Your task to perform on an android device: Show me the alarms in the clock app Image 0: 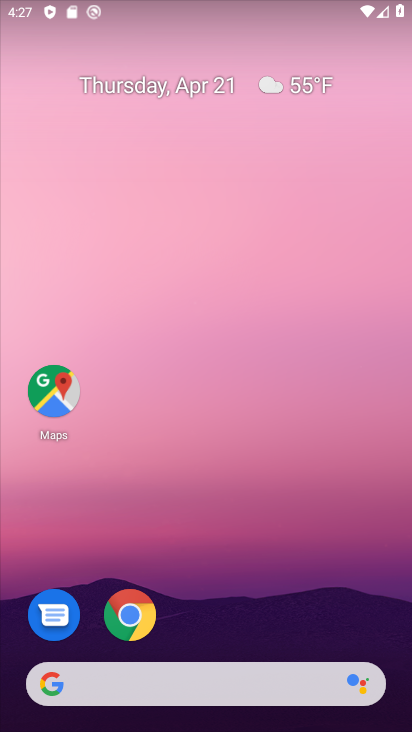
Step 0: click (198, 180)
Your task to perform on an android device: Show me the alarms in the clock app Image 1: 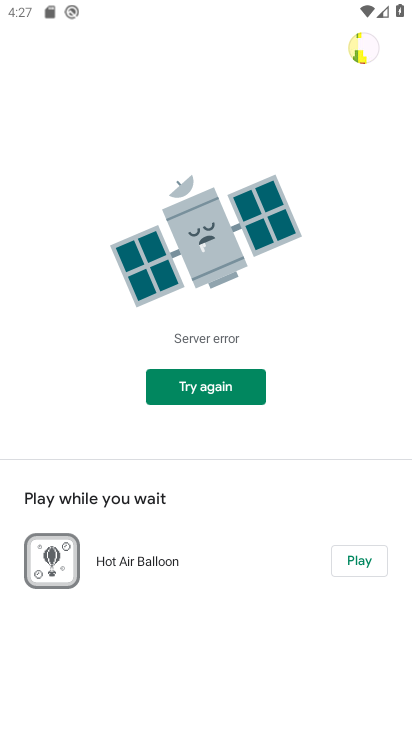
Step 1: press home button
Your task to perform on an android device: Show me the alarms in the clock app Image 2: 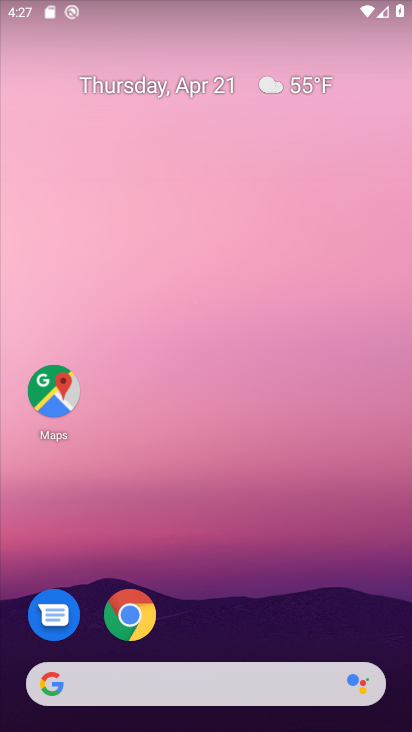
Step 2: drag from (205, 616) to (211, 195)
Your task to perform on an android device: Show me the alarms in the clock app Image 3: 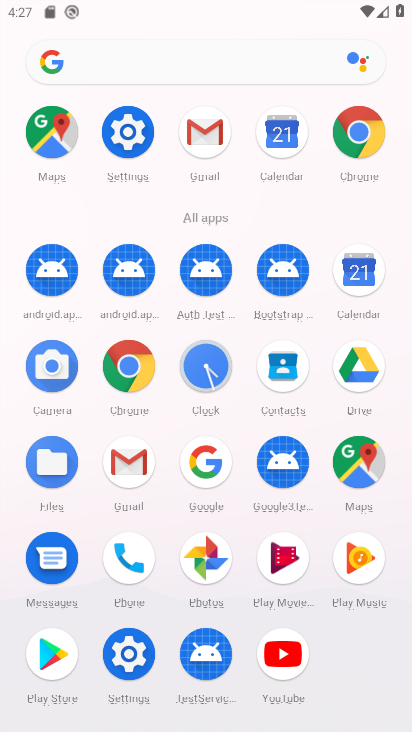
Step 3: click (212, 353)
Your task to perform on an android device: Show me the alarms in the clock app Image 4: 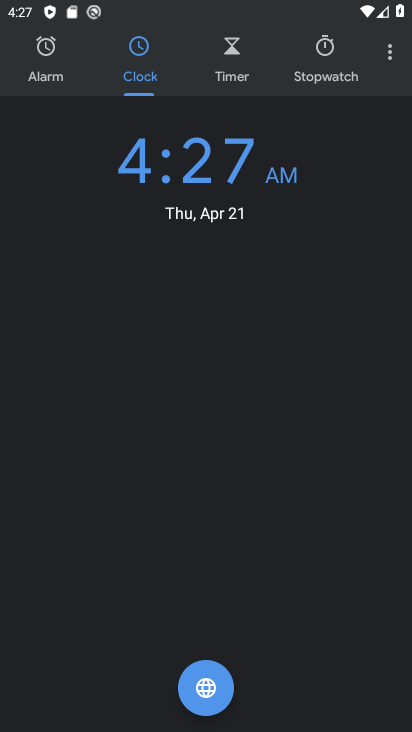
Step 4: click (57, 66)
Your task to perform on an android device: Show me the alarms in the clock app Image 5: 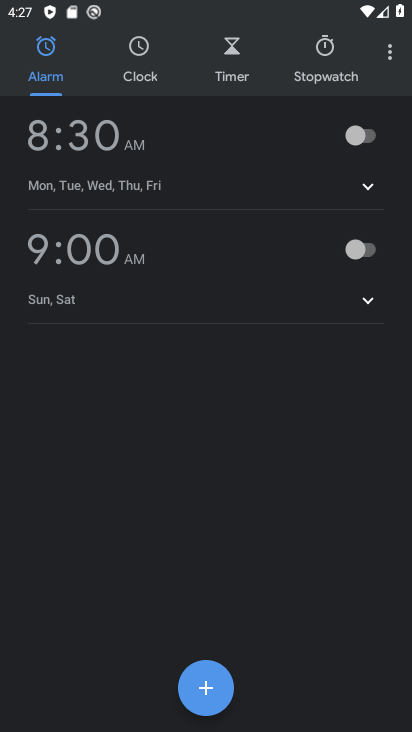
Step 5: task complete